Your task to perform on an android device: Open settings on Google Maps Image 0: 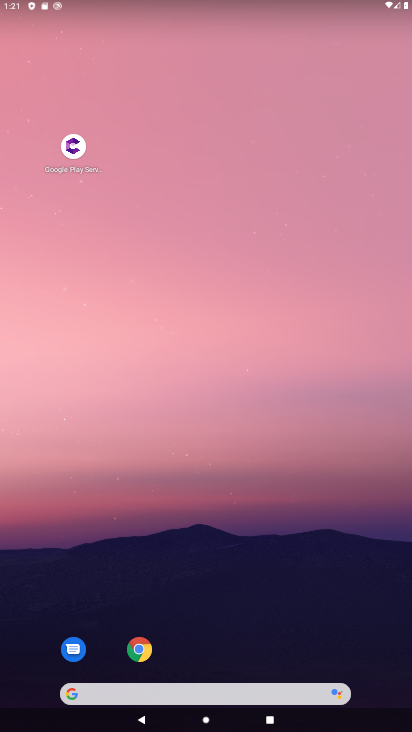
Step 0: drag from (282, 564) to (248, 253)
Your task to perform on an android device: Open settings on Google Maps Image 1: 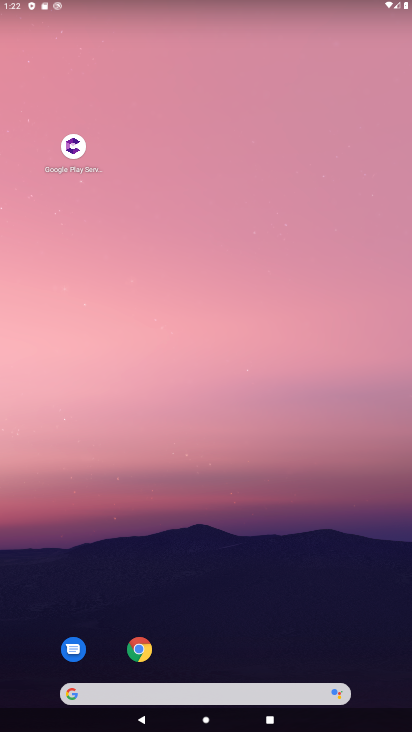
Step 1: drag from (210, 476) to (213, 235)
Your task to perform on an android device: Open settings on Google Maps Image 2: 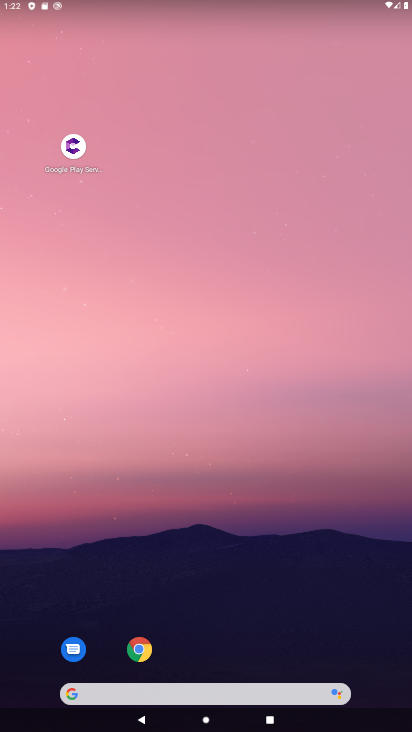
Step 2: drag from (285, 519) to (234, 109)
Your task to perform on an android device: Open settings on Google Maps Image 3: 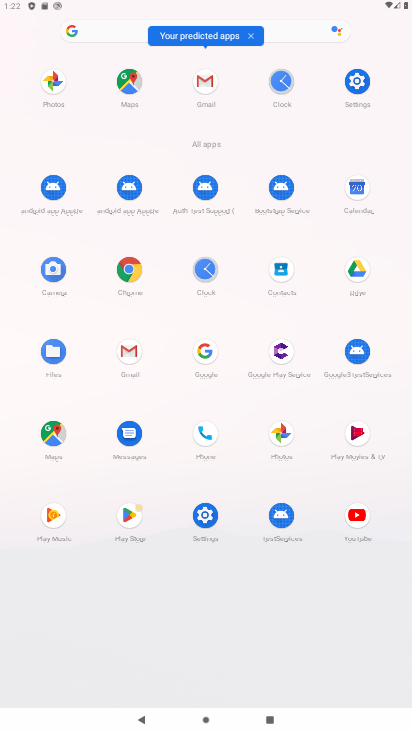
Step 3: click (43, 437)
Your task to perform on an android device: Open settings on Google Maps Image 4: 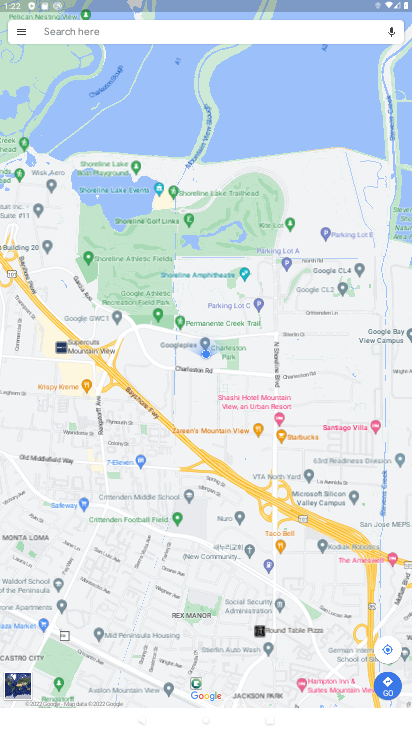
Step 4: click (238, 34)
Your task to perform on an android device: Open settings on Google Maps Image 5: 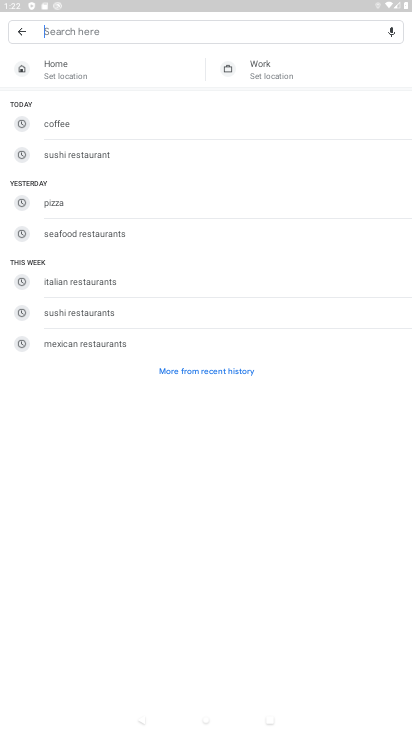
Step 5: click (21, 35)
Your task to perform on an android device: Open settings on Google Maps Image 6: 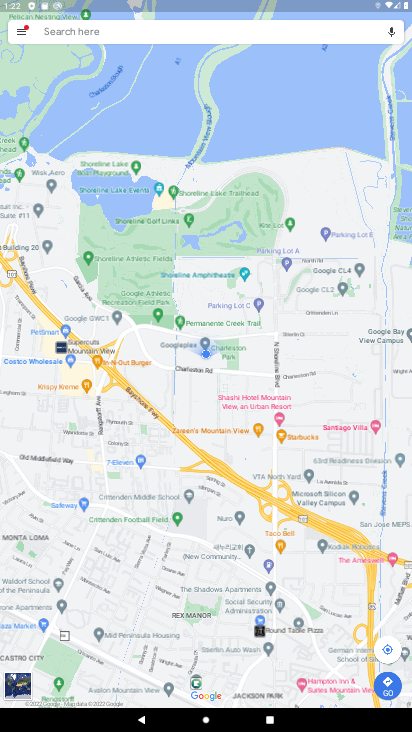
Step 6: click (21, 35)
Your task to perform on an android device: Open settings on Google Maps Image 7: 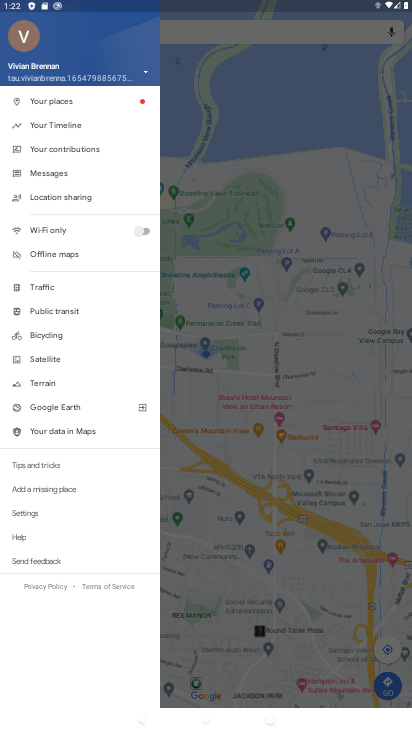
Step 7: click (32, 509)
Your task to perform on an android device: Open settings on Google Maps Image 8: 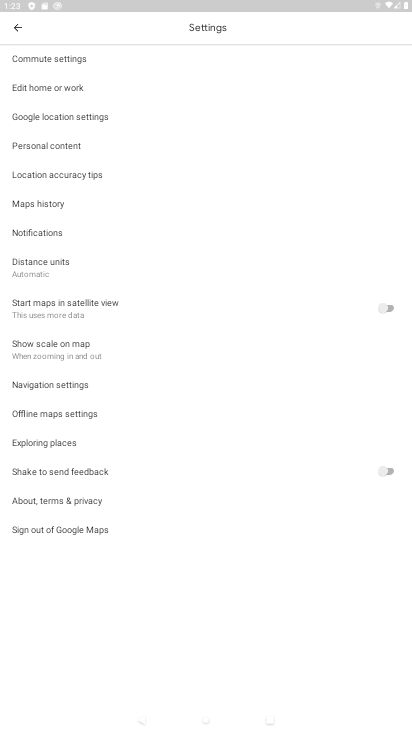
Step 8: task complete